Your task to perform on an android device: Open Amazon Image 0: 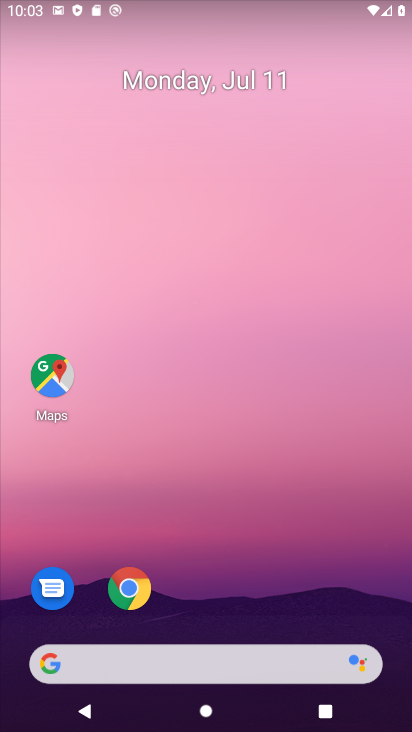
Step 0: click (127, 587)
Your task to perform on an android device: Open Amazon Image 1: 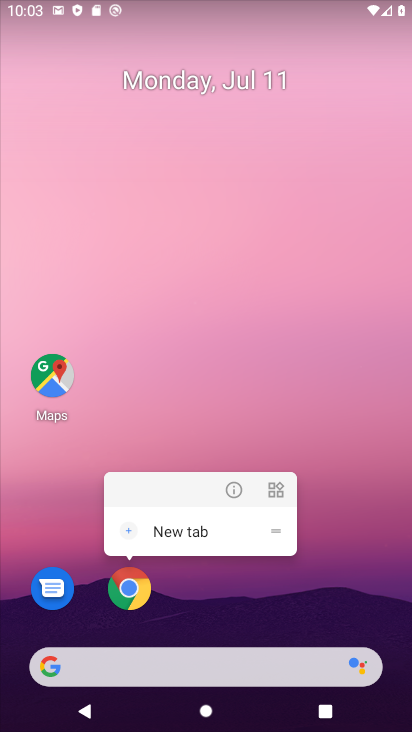
Step 1: click (138, 586)
Your task to perform on an android device: Open Amazon Image 2: 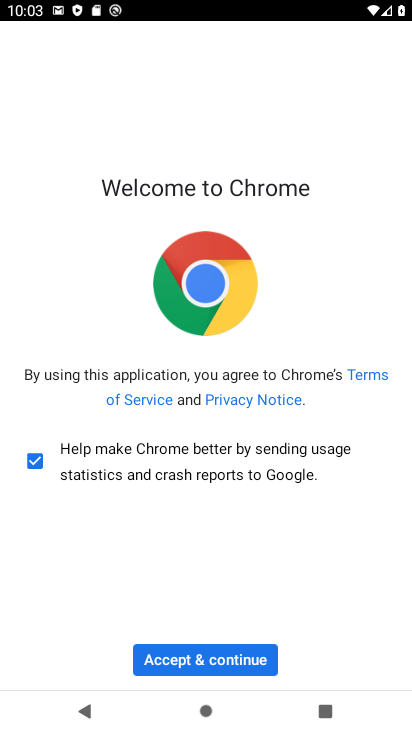
Step 2: click (225, 660)
Your task to perform on an android device: Open Amazon Image 3: 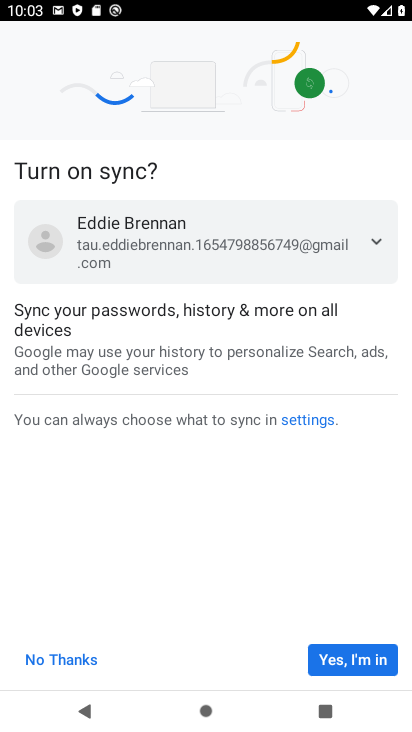
Step 3: click (336, 657)
Your task to perform on an android device: Open Amazon Image 4: 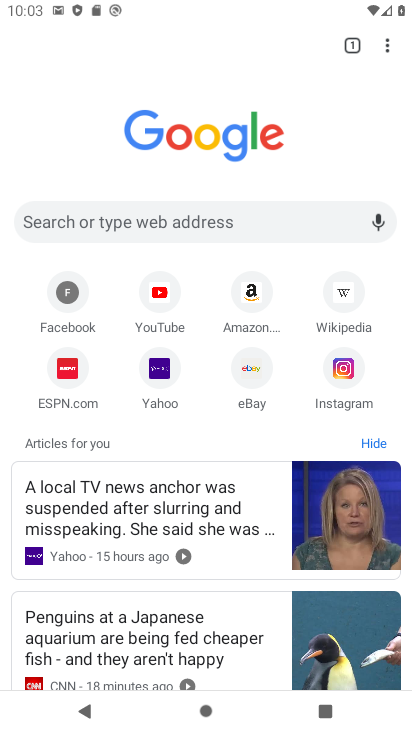
Step 4: click (248, 303)
Your task to perform on an android device: Open Amazon Image 5: 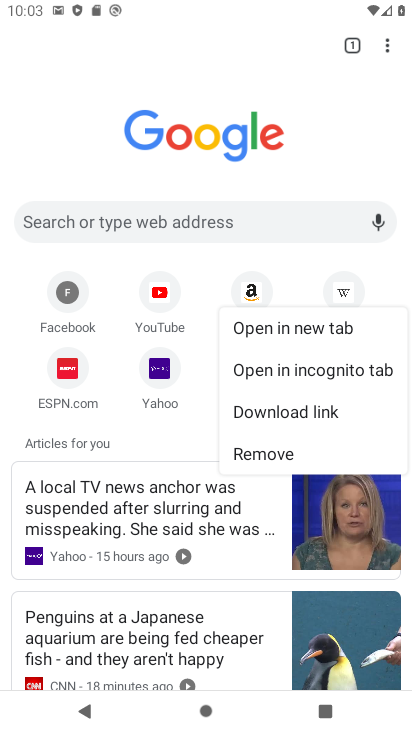
Step 5: click (252, 287)
Your task to perform on an android device: Open Amazon Image 6: 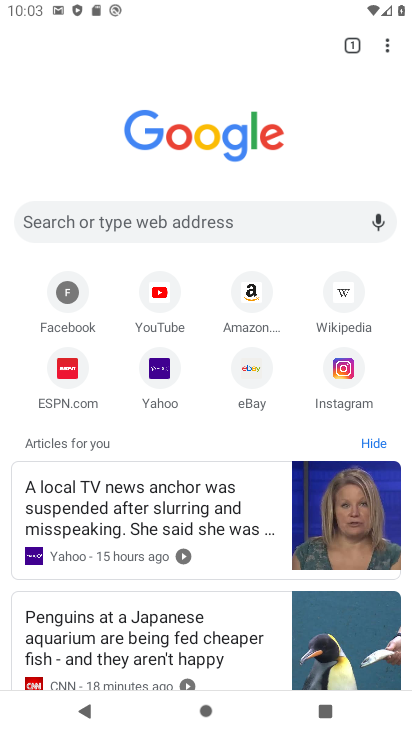
Step 6: click (252, 288)
Your task to perform on an android device: Open Amazon Image 7: 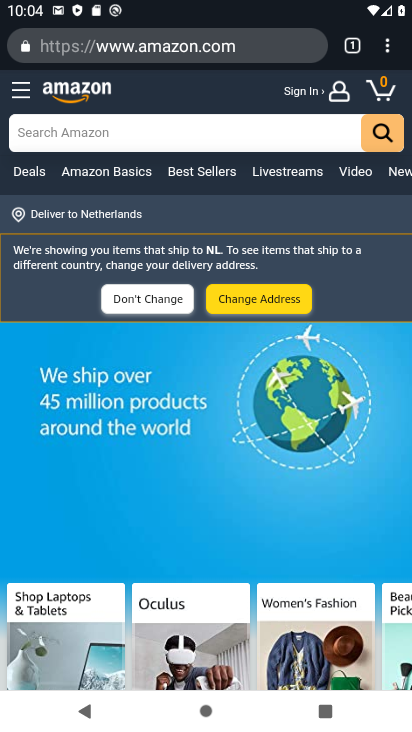
Step 7: task complete